Your task to perform on an android device: turn on sleep mode Image 0: 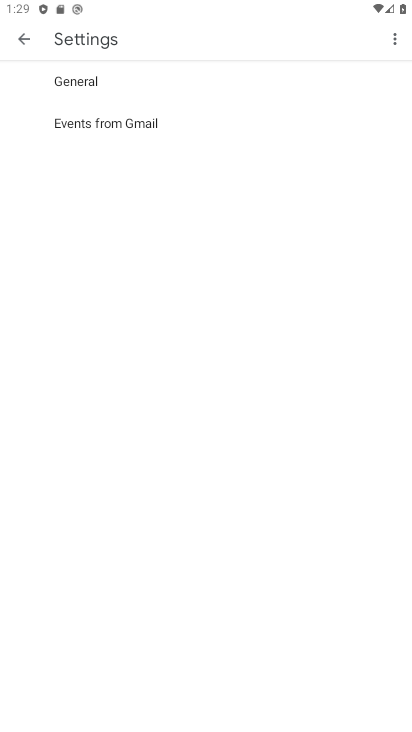
Step 0: press home button
Your task to perform on an android device: turn on sleep mode Image 1: 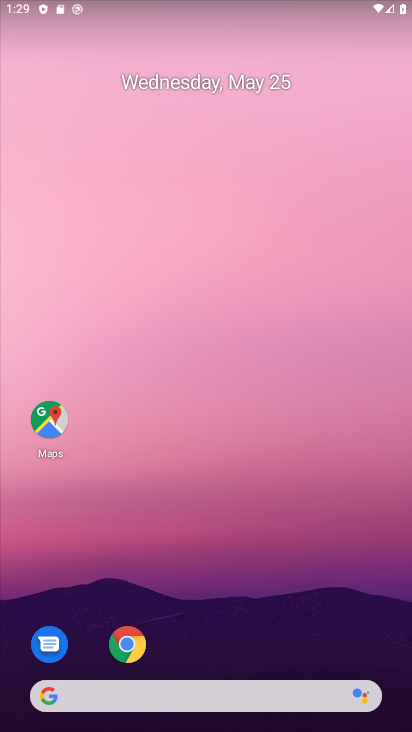
Step 1: drag from (330, 601) to (348, 177)
Your task to perform on an android device: turn on sleep mode Image 2: 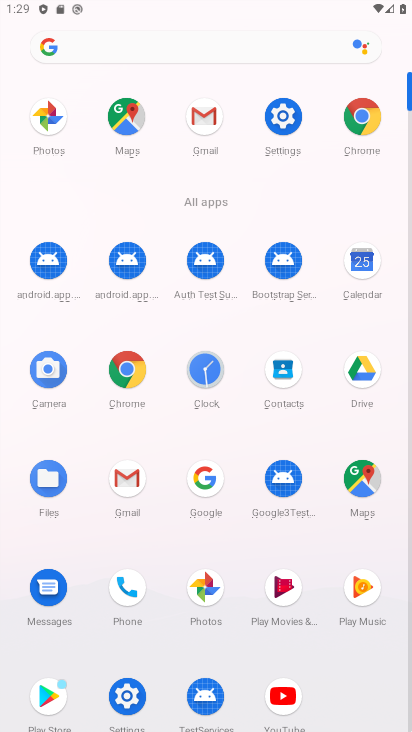
Step 2: click (122, 696)
Your task to perform on an android device: turn on sleep mode Image 3: 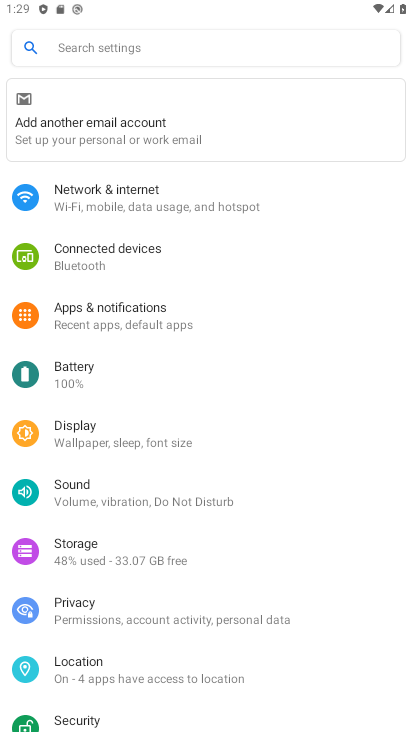
Step 3: drag from (340, 591) to (328, 378)
Your task to perform on an android device: turn on sleep mode Image 4: 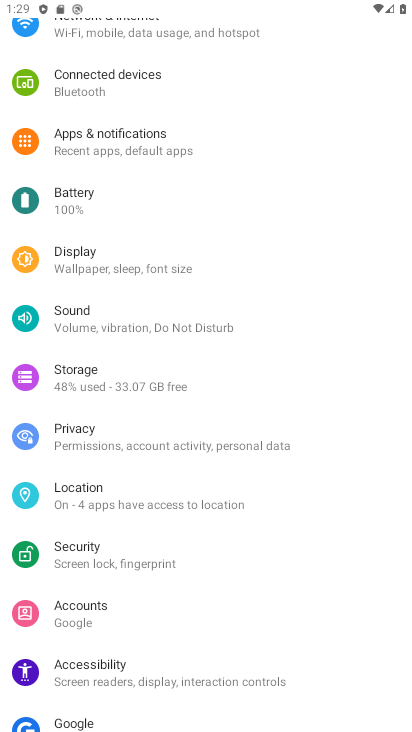
Step 4: click (251, 264)
Your task to perform on an android device: turn on sleep mode Image 5: 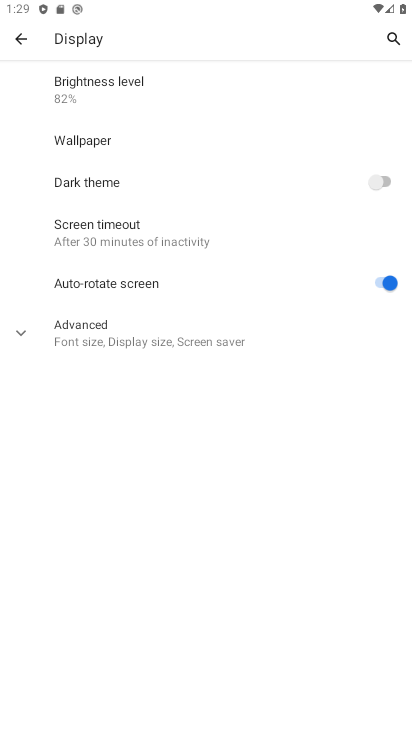
Step 5: task complete